Your task to perform on an android device: turn off notifications settings in the gmail app Image 0: 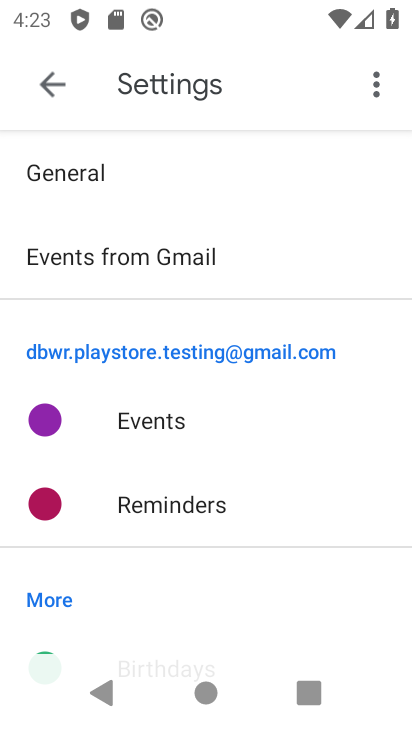
Step 0: click (46, 81)
Your task to perform on an android device: turn off notifications settings in the gmail app Image 1: 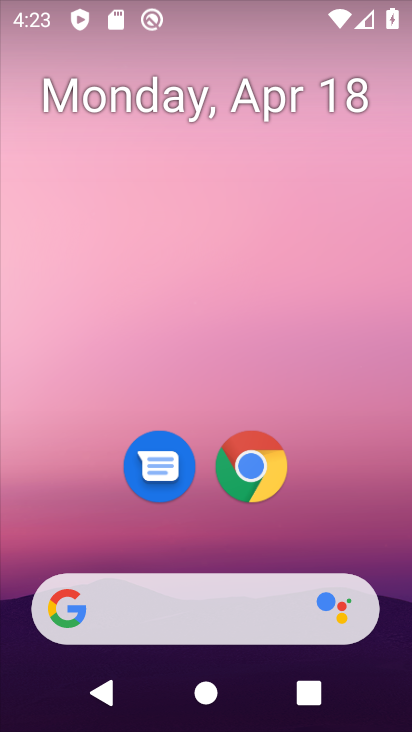
Step 1: drag from (351, 488) to (263, 20)
Your task to perform on an android device: turn off notifications settings in the gmail app Image 2: 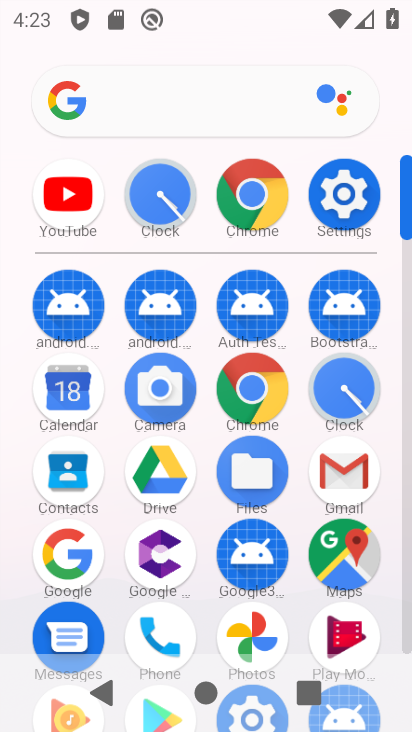
Step 2: drag from (1, 510) to (7, 270)
Your task to perform on an android device: turn off notifications settings in the gmail app Image 3: 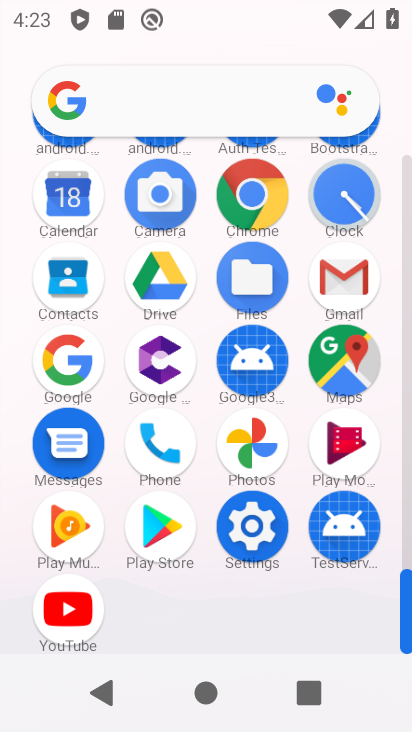
Step 3: click (341, 275)
Your task to perform on an android device: turn off notifications settings in the gmail app Image 4: 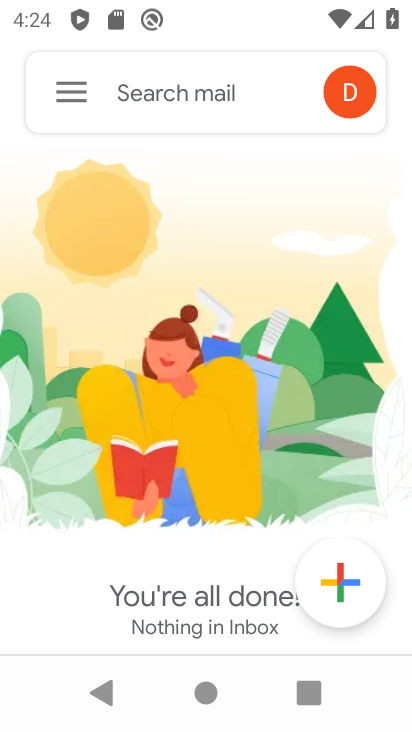
Step 4: click (66, 93)
Your task to perform on an android device: turn off notifications settings in the gmail app Image 5: 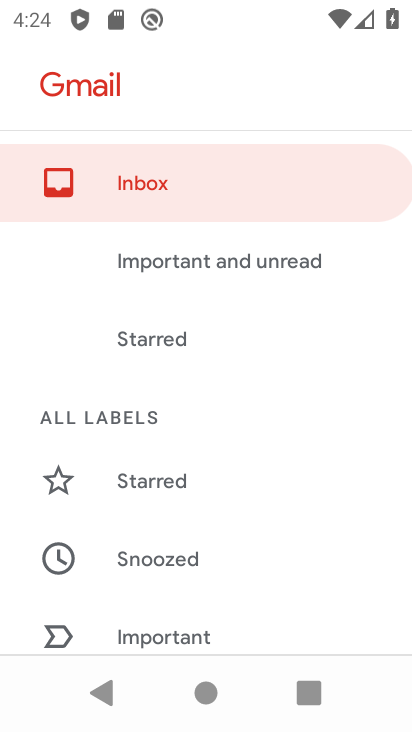
Step 5: drag from (248, 626) to (235, 140)
Your task to perform on an android device: turn off notifications settings in the gmail app Image 6: 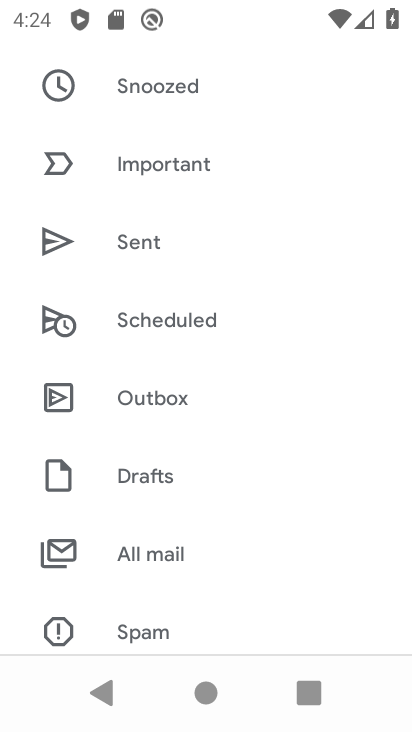
Step 6: drag from (213, 279) to (229, 124)
Your task to perform on an android device: turn off notifications settings in the gmail app Image 7: 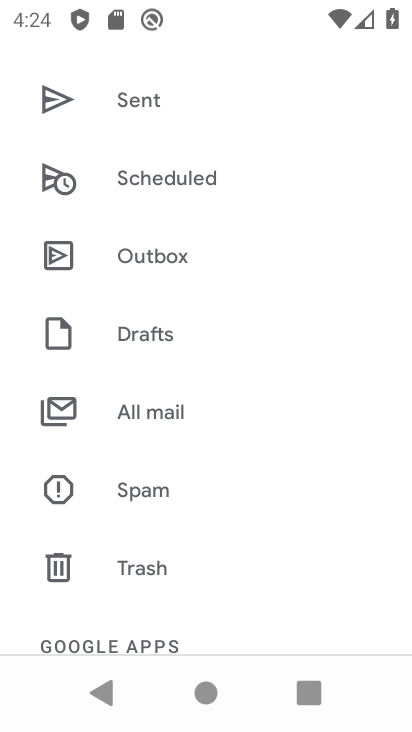
Step 7: drag from (201, 532) to (209, 161)
Your task to perform on an android device: turn off notifications settings in the gmail app Image 8: 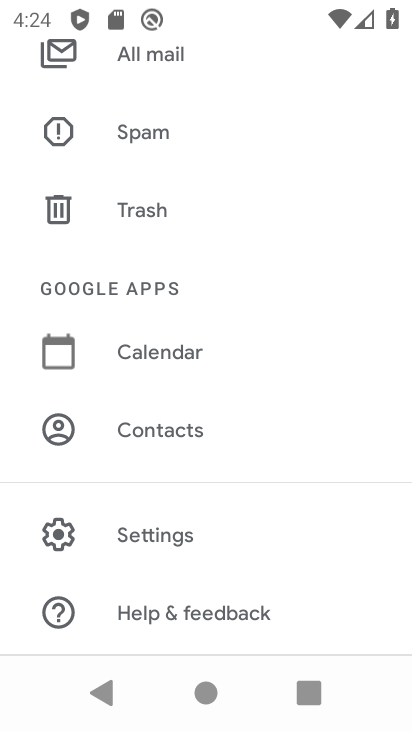
Step 8: click (147, 527)
Your task to perform on an android device: turn off notifications settings in the gmail app Image 9: 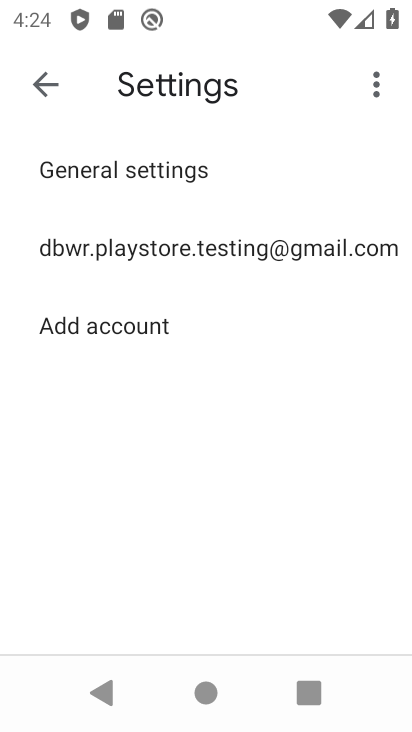
Step 9: click (169, 176)
Your task to perform on an android device: turn off notifications settings in the gmail app Image 10: 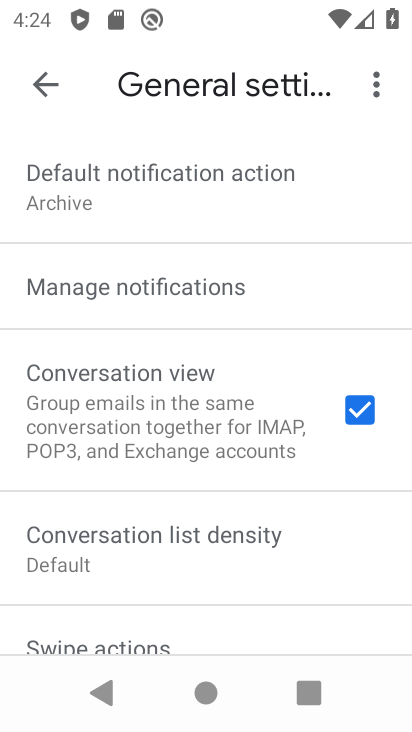
Step 10: click (134, 281)
Your task to perform on an android device: turn off notifications settings in the gmail app Image 11: 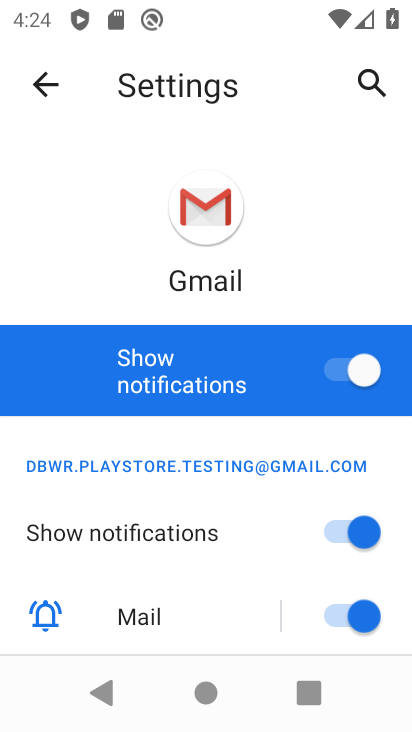
Step 11: click (348, 382)
Your task to perform on an android device: turn off notifications settings in the gmail app Image 12: 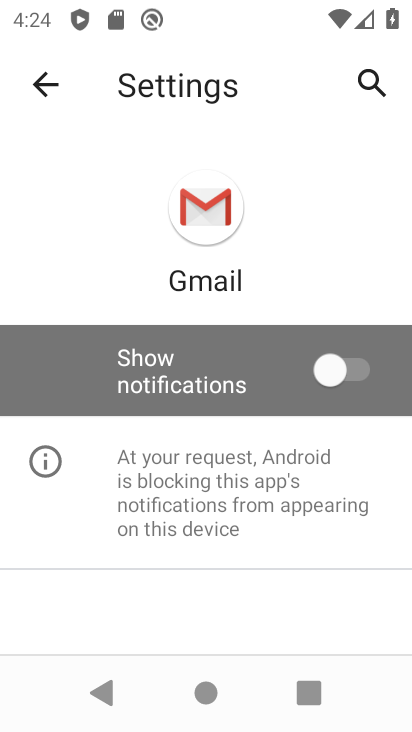
Step 12: task complete